Your task to perform on an android device: Open Google Maps Image 0: 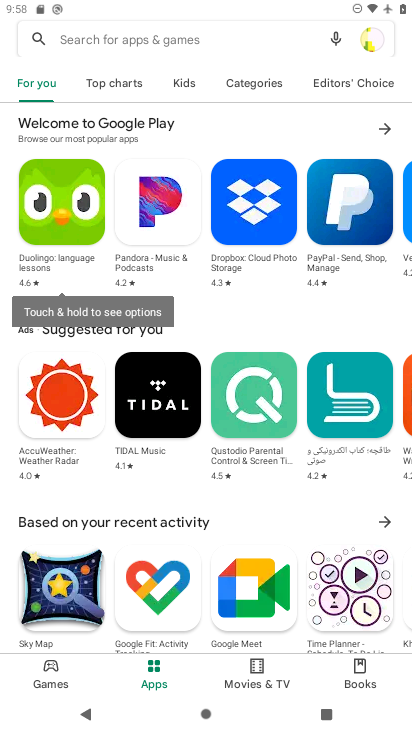
Step 0: press home button
Your task to perform on an android device: Open Google Maps Image 1: 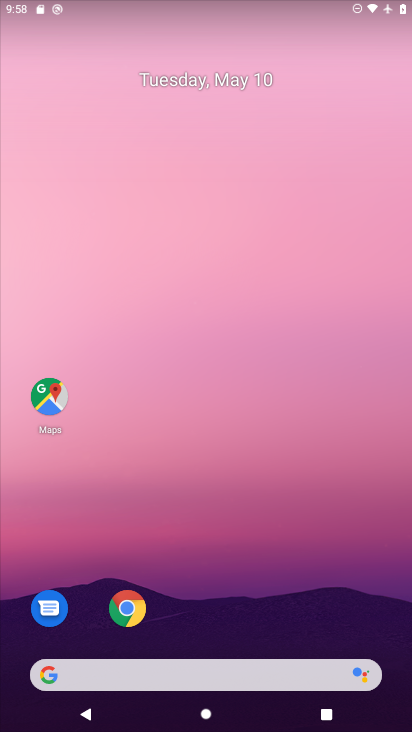
Step 1: click (49, 384)
Your task to perform on an android device: Open Google Maps Image 2: 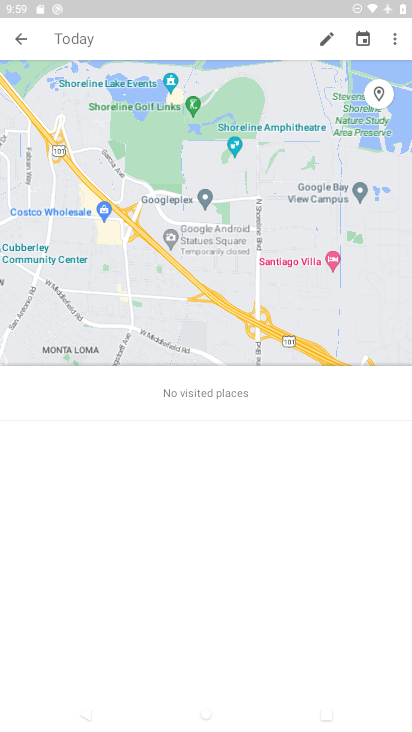
Step 2: task complete